Your task to perform on an android device: Open settings Image 0: 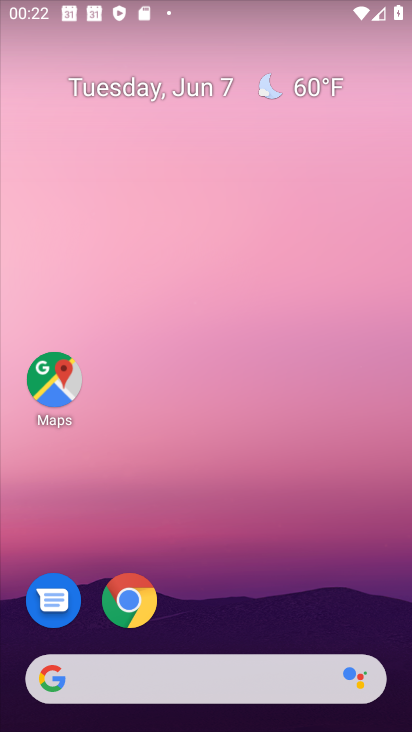
Step 0: drag from (195, 712) to (197, 240)
Your task to perform on an android device: Open settings Image 1: 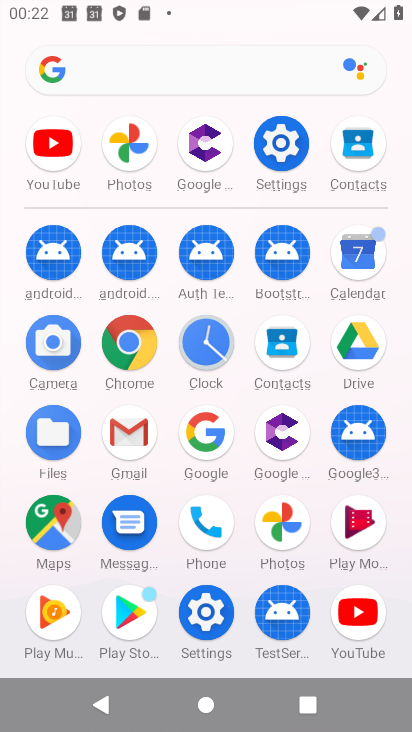
Step 1: click (277, 148)
Your task to perform on an android device: Open settings Image 2: 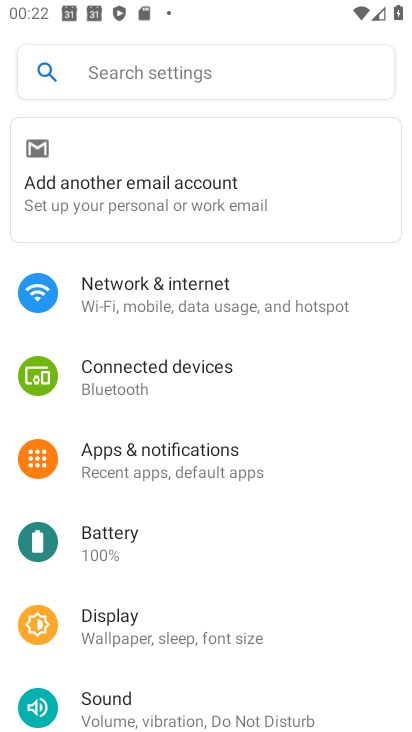
Step 2: task complete